Your task to perform on an android device: choose inbox layout in the gmail app Image 0: 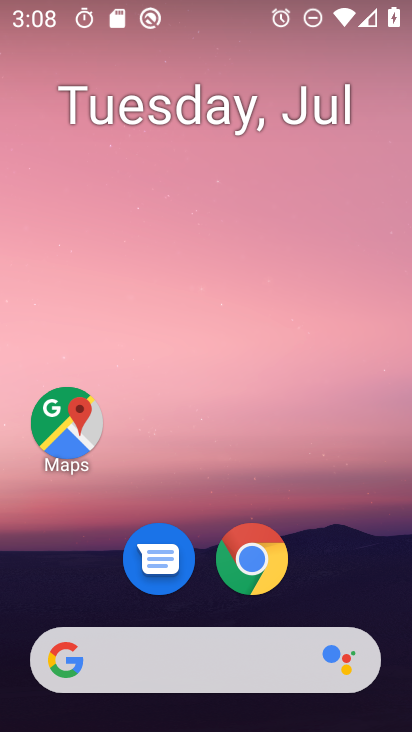
Step 0: drag from (370, 575) to (367, 126)
Your task to perform on an android device: choose inbox layout in the gmail app Image 1: 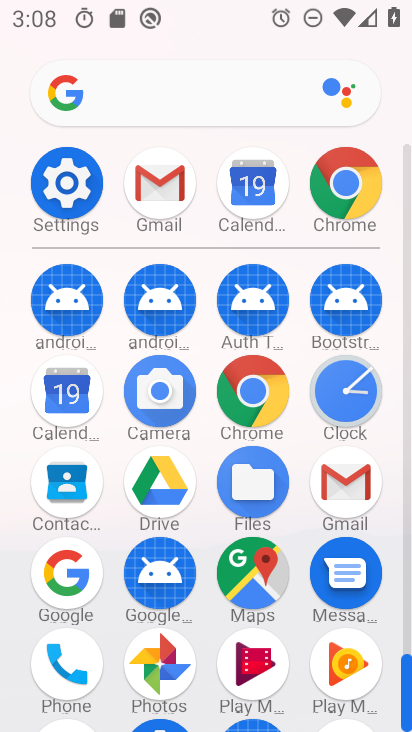
Step 1: click (359, 480)
Your task to perform on an android device: choose inbox layout in the gmail app Image 2: 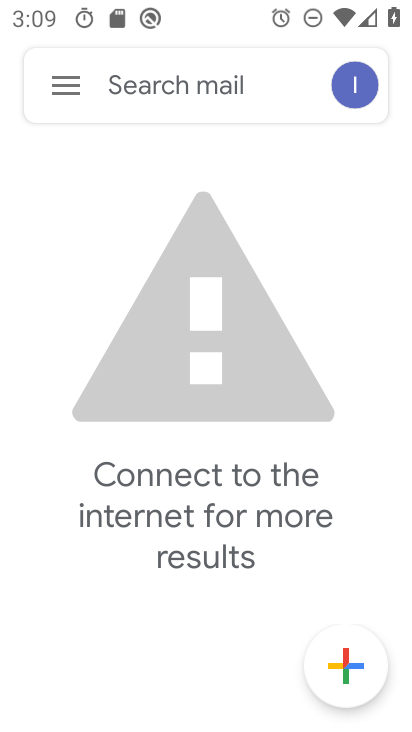
Step 2: click (61, 87)
Your task to perform on an android device: choose inbox layout in the gmail app Image 3: 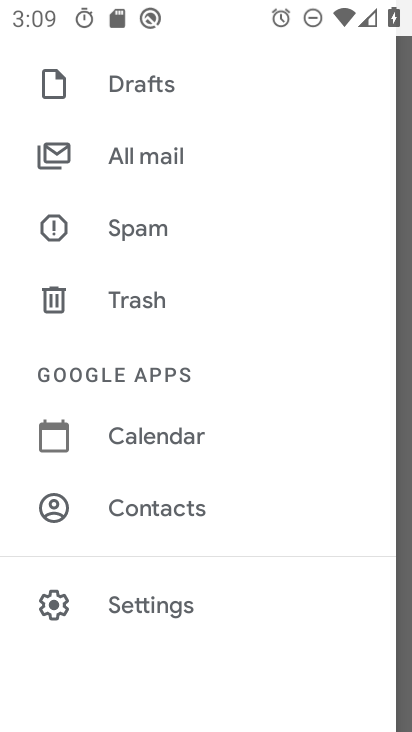
Step 3: click (147, 612)
Your task to perform on an android device: choose inbox layout in the gmail app Image 4: 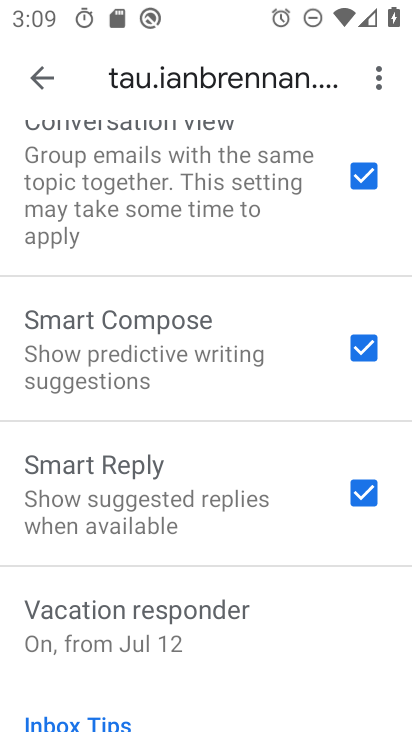
Step 4: drag from (314, 248) to (314, 359)
Your task to perform on an android device: choose inbox layout in the gmail app Image 5: 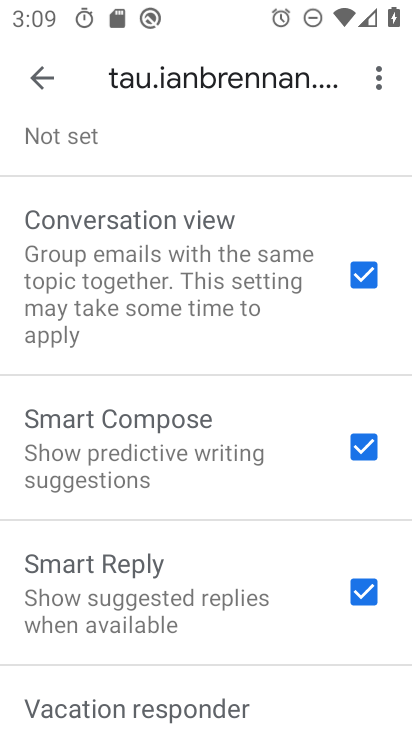
Step 5: drag from (296, 233) to (285, 397)
Your task to perform on an android device: choose inbox layout in the gmail app Image 6: 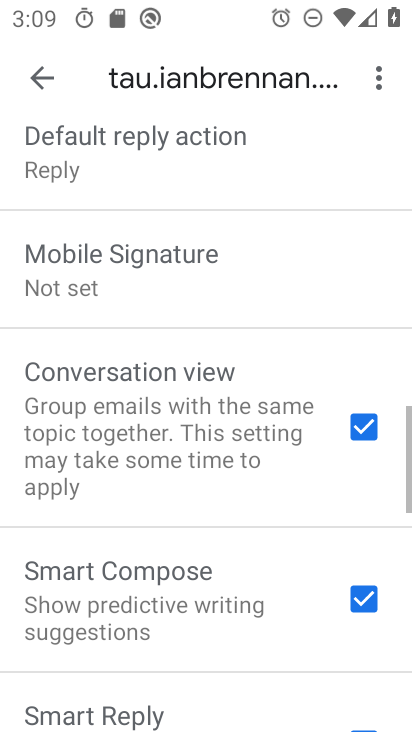
Step 6: drag from (276, 200) to (275, 361)
Your task to perform on an android device: choose inbox layout in the gmail app Image 7: 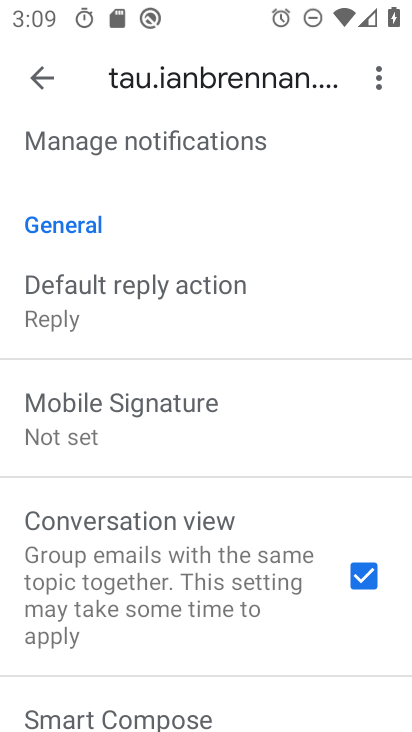
Step 7: drag from (325, 256) to (330, 397)
Your task to perform on an android device: choose inbox layout in the gmail app Image 8: 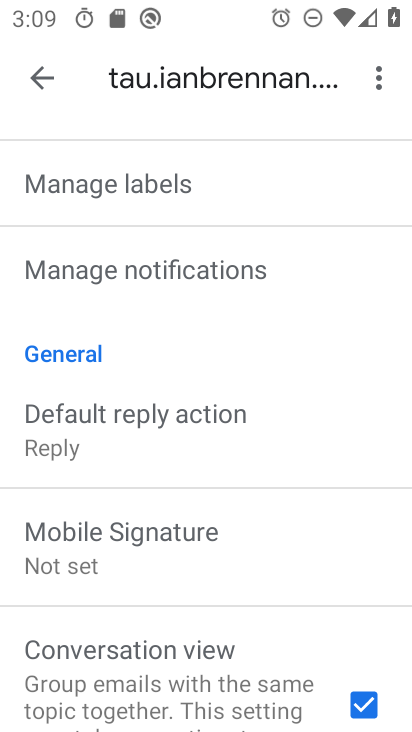
Step 8: drag from (333, 222) to (325, 393)
Your task to perform on an android device: choose inbox layout in the gmail app Image 9: 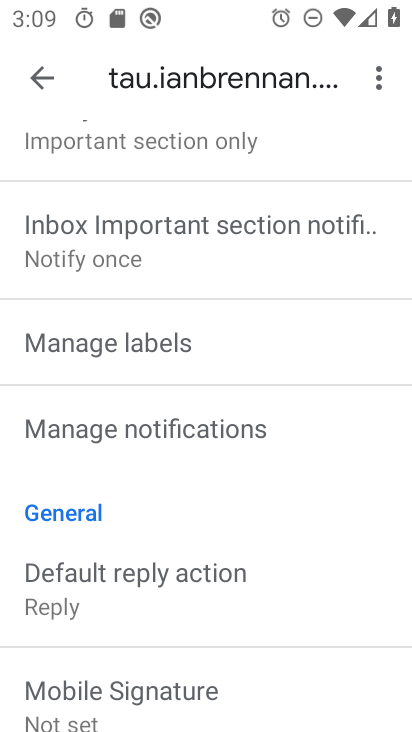
Step 9: drag from (323, 159) to (323, 390)
Your task to perform on an android device: choose inbox layout in the gmail app Image 10: 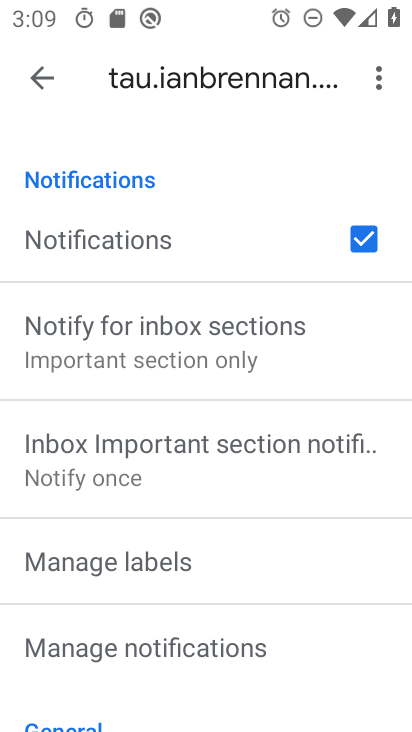
Step 10: drag from (252, 203) to (264, 374)
Your task to perform on an android device: choose inbox layout in the gmail app Image 11: 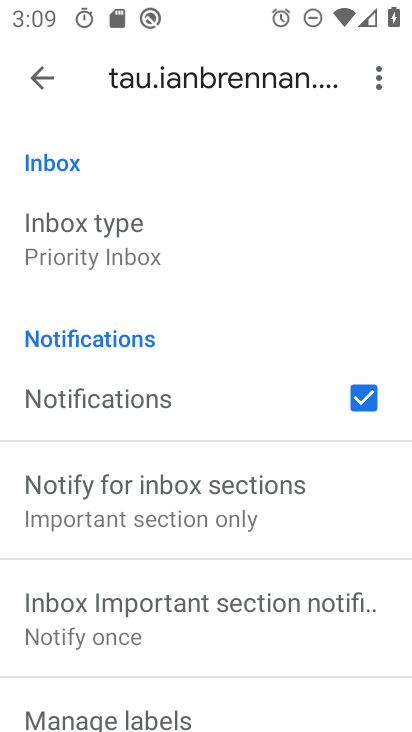
Step 11: click (130, 254)
Your task to perform on an android device: choose inbox layout in the gmail app Image 12: 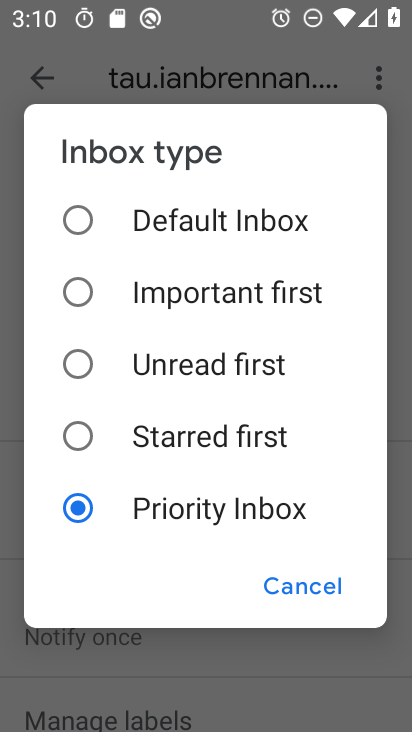
Step 12: click (307, 302)
Your task to perform on an android device: choose inbox layout in the gmail app Image 13: 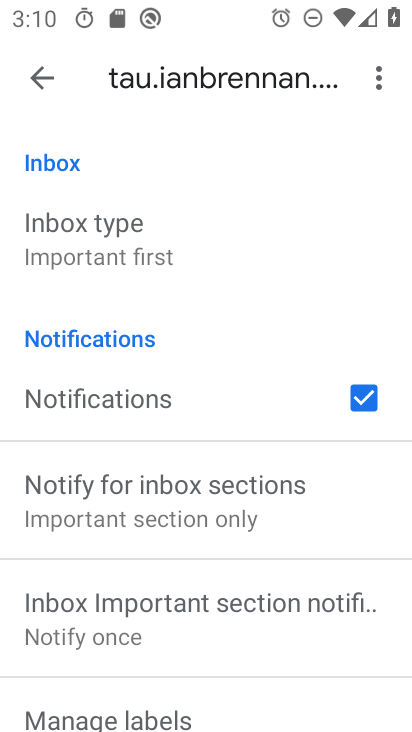
Step 13: task complete